Your task to perform on an android device: refresh tabs in the chrome app Image 0: 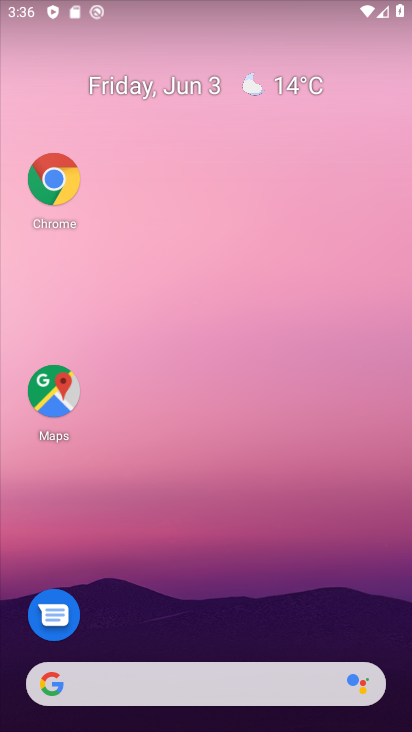
Step 0: click (60, 186)
Your task to perform on an android device: refresh tabs in the chrome app Image 1: 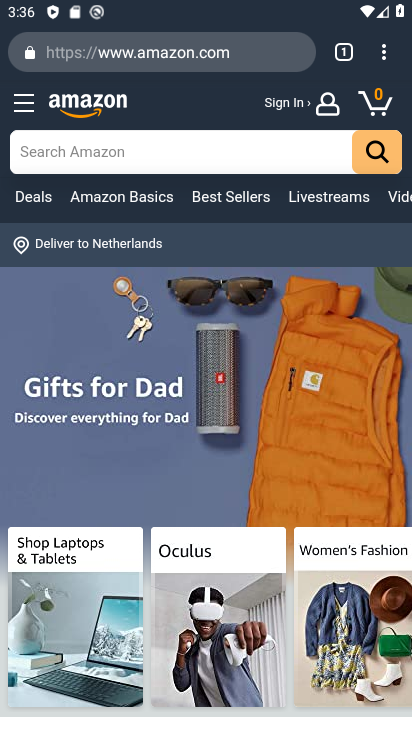
Step 1: click (383, 59)
Your task to perform on an android device: refresh tabs in the chrome app Image 2: 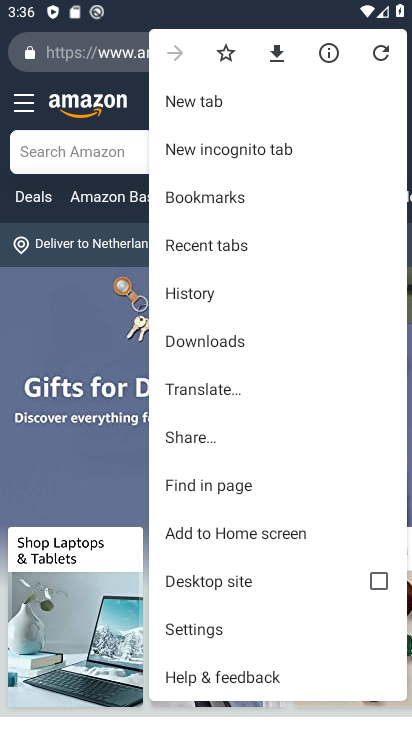
Step 2: click (376, 48)
Your task to perform on an android device: refresh tabs in the chrome app Image 3: 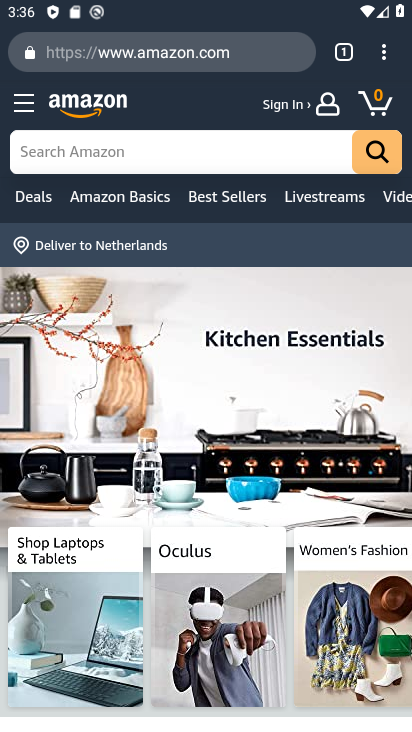
Step 3: click (376, 48)
Your task to perform on an android device: refresh tabs in the chrome app Image 4: 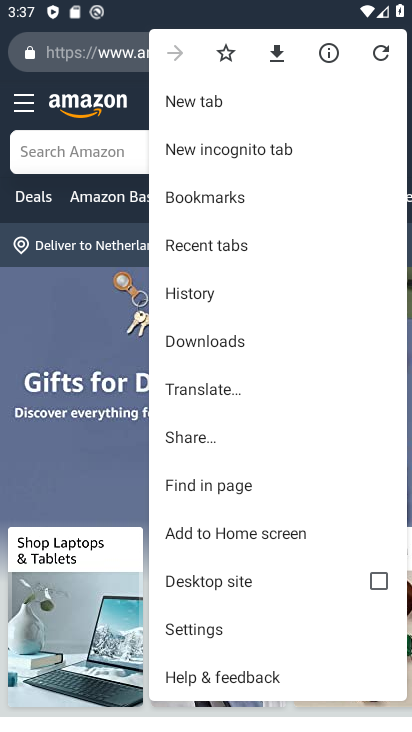
Step 4: task complete